Your task to perform on an android device: turn on airplane mode Image 0: 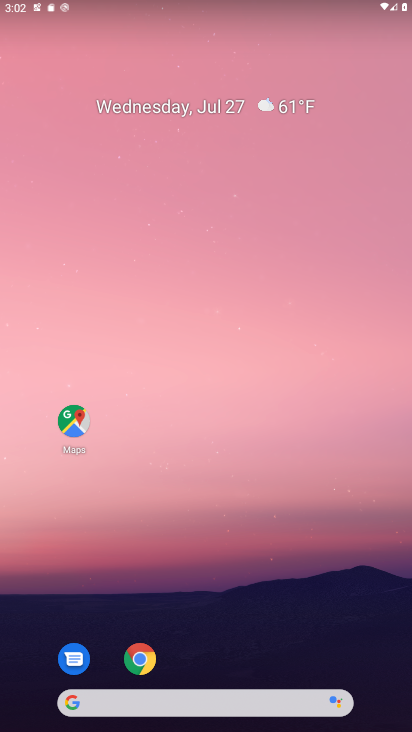
Step 0: drag from (218, 619) to (185, 70)
Your task to perform on an android device: turn on airplane mode Image 1: 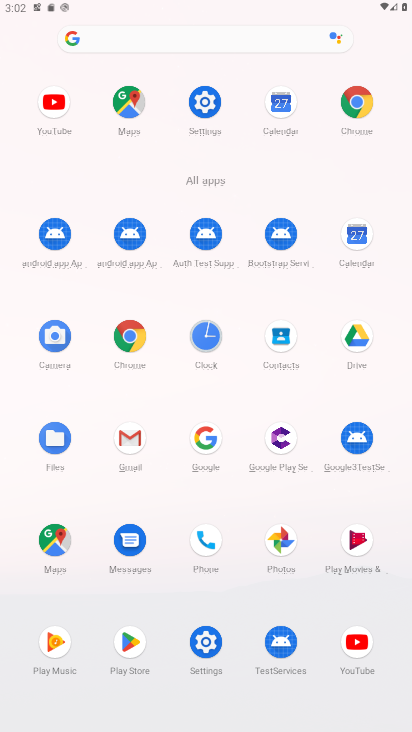
Step 1: click (197, 103)
Your task to perform on an android device: turn on airplane mode Image 2: 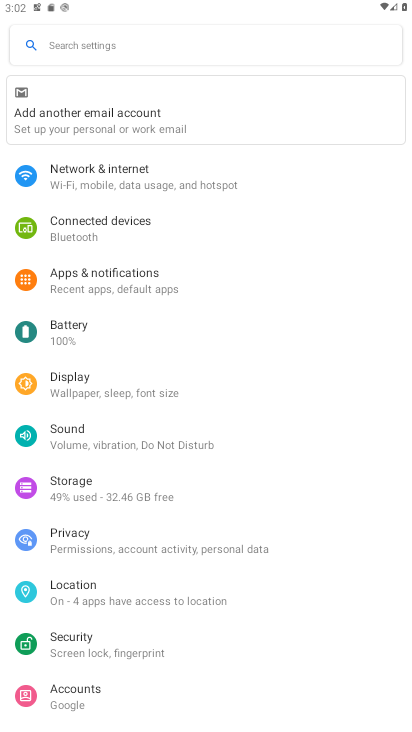
Step 2: click (95, 175)
Your task to perform on an android device: turn on airplane mode Image 3: 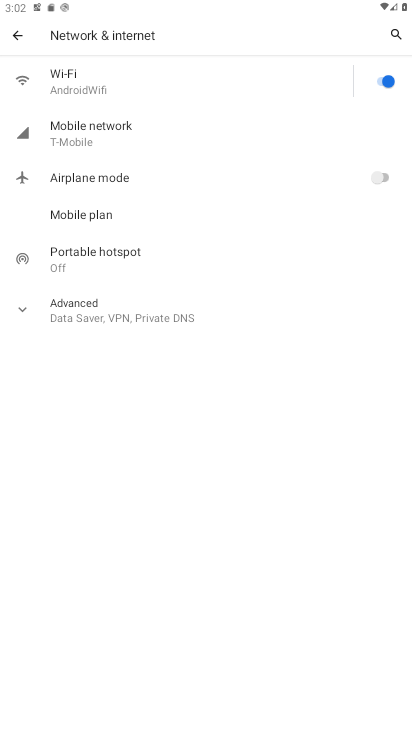
Step 3: click (377, 177)
Your task to perform on an android device: turn on airplane mode Image 4: 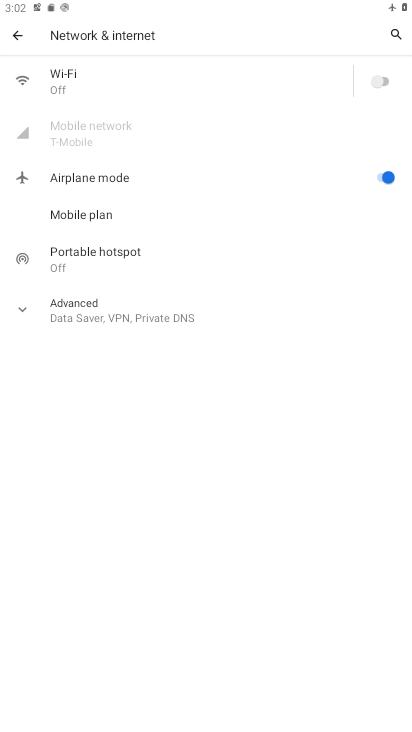
Step 4: task complete